Your task to perform on an android device: open wifi settings Image 0: 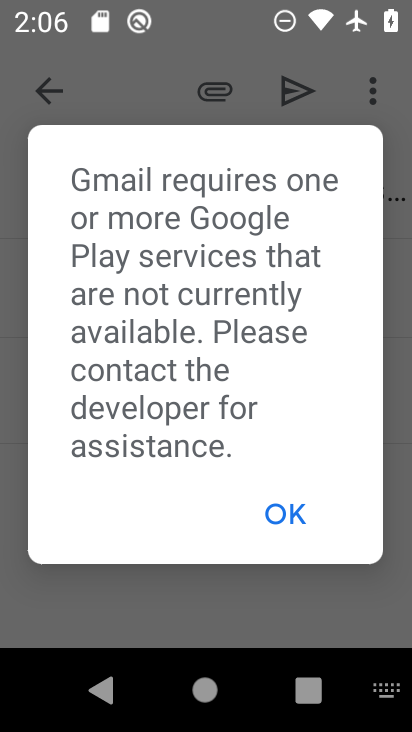
Step 0: press home button
Your task to perform on an android device: open wifi settings Image 1: 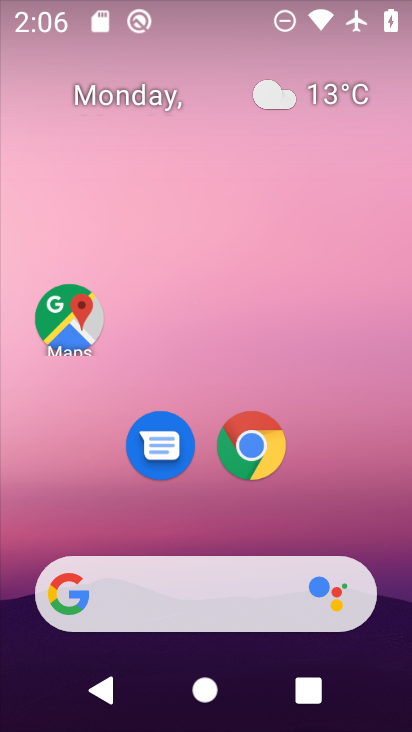
Step 1: drag from (386, 623) to (302, 28)
Your task to perform on an android device: open wifi settings Image 2: 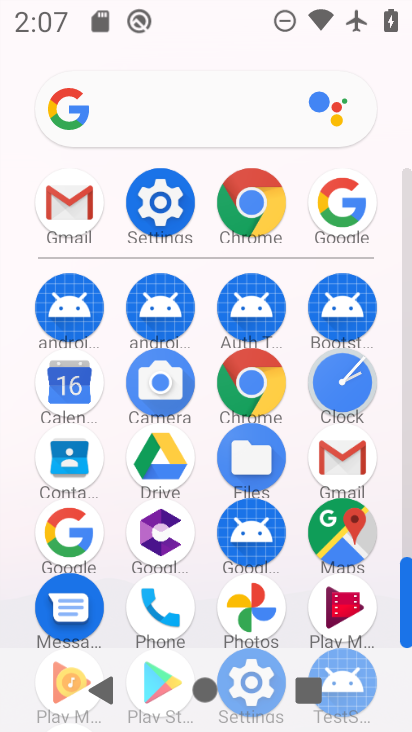
Step 2: click (169, 229)
Your task to perform on an android device: open wifi settings Image 3: 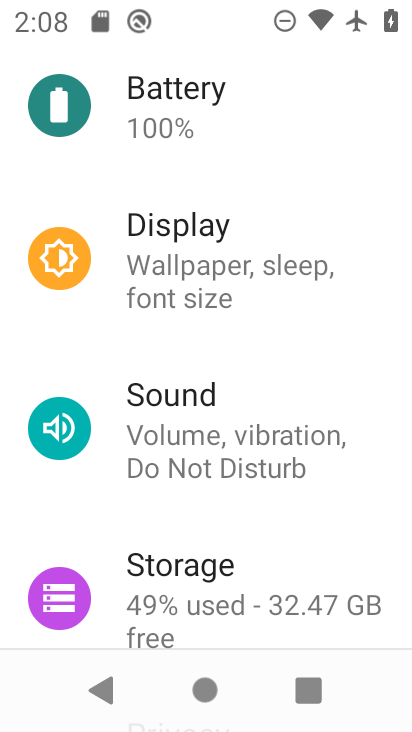
Step 3: drag from (193, 187) to (258, 720)
Your task to perform on an android device: open wifi settings Image 4: 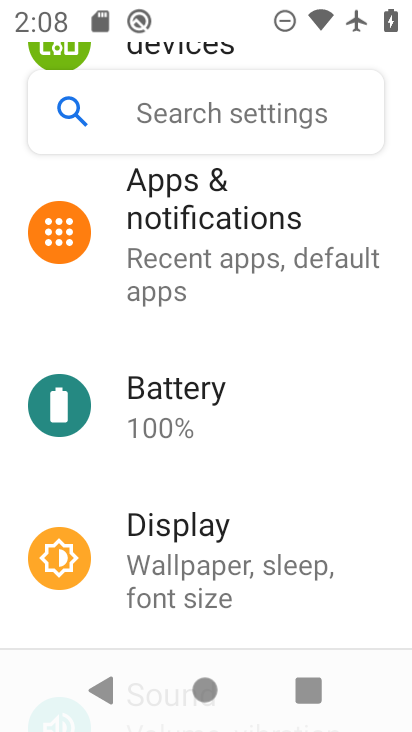
Step 4: drag from (306, 215) to (378, 614)
Your task to perform on an android device: open wifi settings Image 5: 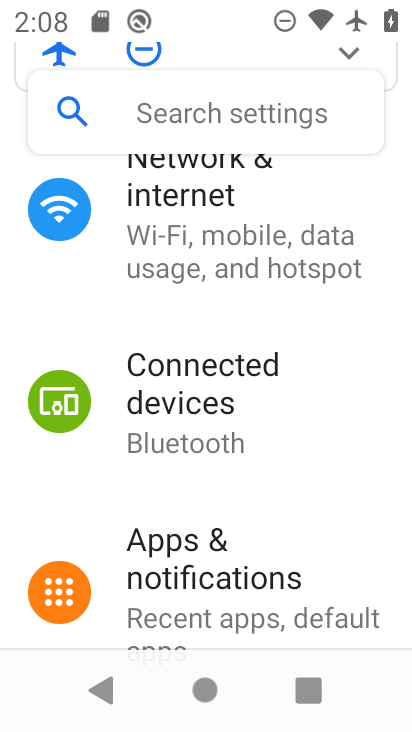
Step 5: click (237, 243)
Your task to perform on an android device: open wifi settings Image 6: 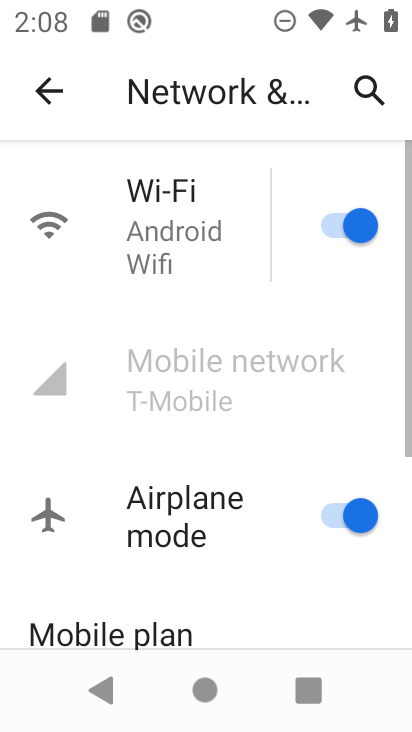
Step 6: click (181, 250)
Your task to perform on an android device: open wifi settings Image 7: 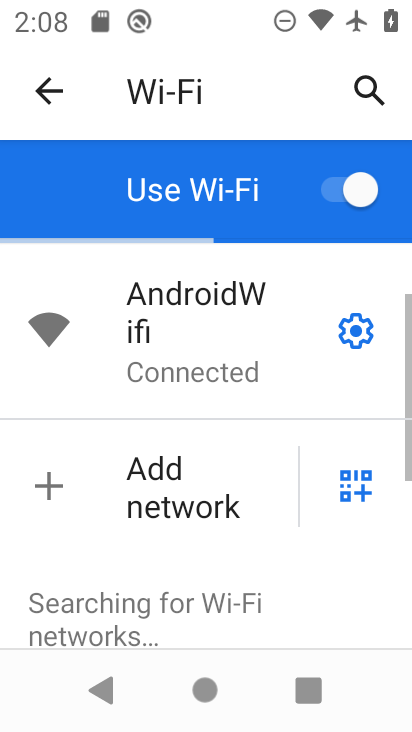
Step 7: task complete